Your task to perform on an android device: all mails in gmail Image 0: 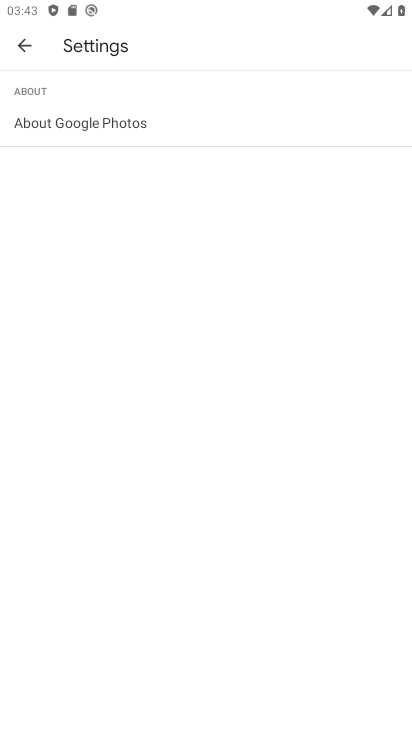
Step 0: press home button
Your task to perform on an android device: all mails in gmail Image 1: 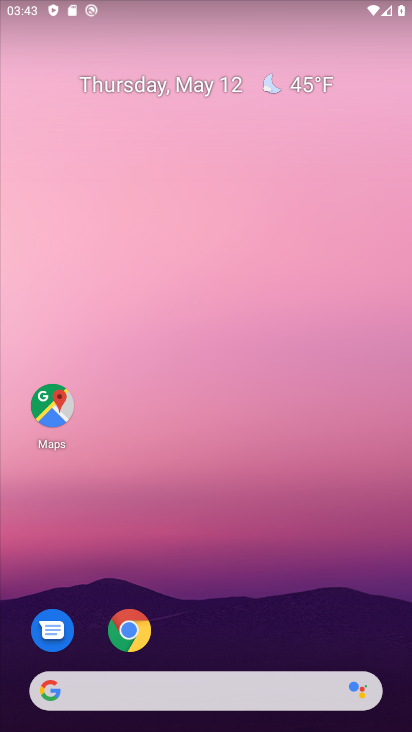
Step 1: drag from (266, 600) to (266, 290)
Your task to perform on an android device: all mails in gmail Image 2: 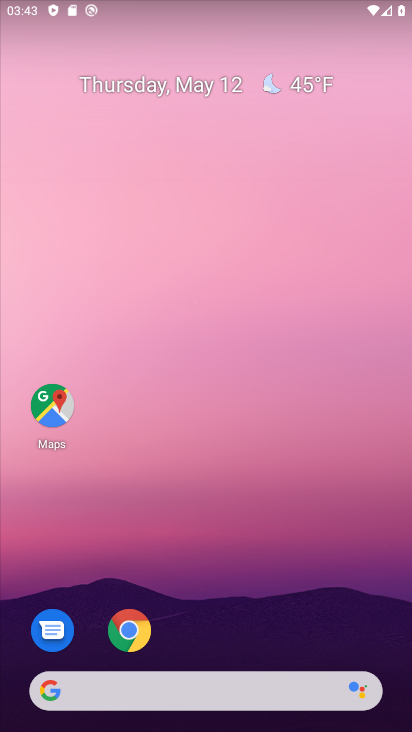
Step 2: drag from (215, 571) to (185, 58)
Your task to perform on an android device: all mails in gmail Image 3: 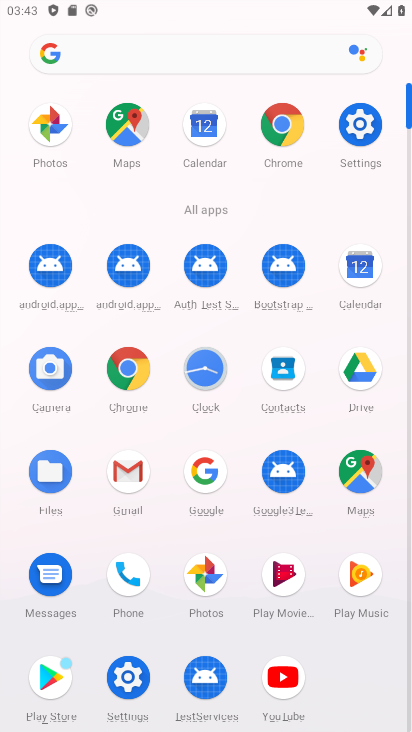
Step 3: click (124, 481)
Your task to perform on an android device: all mails in gmail Image 4: 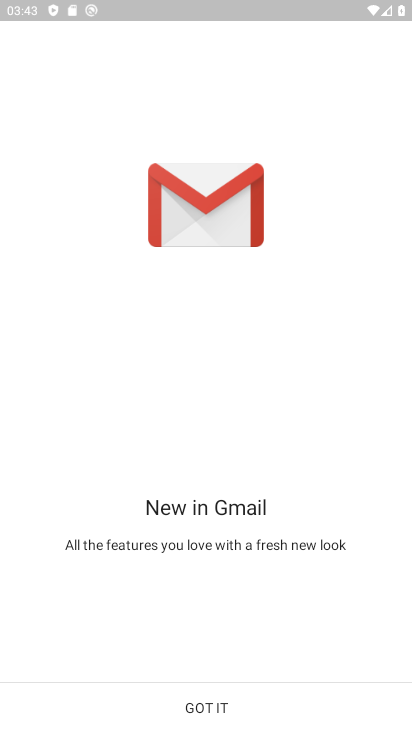
Step 4: click (263, 707)
Your task to perform on an android device: all mails in gmail Image 5: 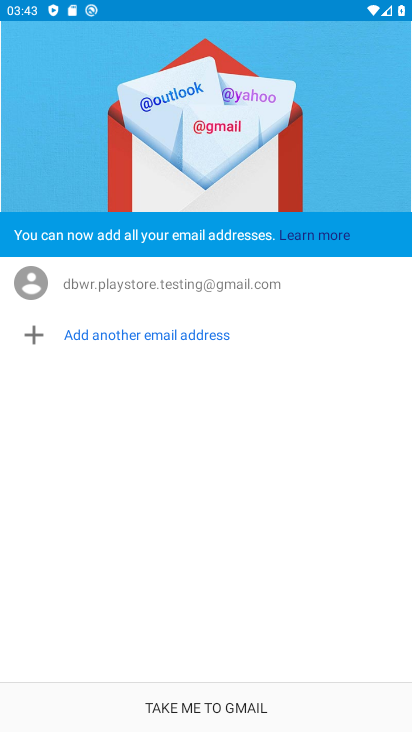
Step 5: click (263, 707)
Your task to perform on an android device: all mails in gmail Image 6: 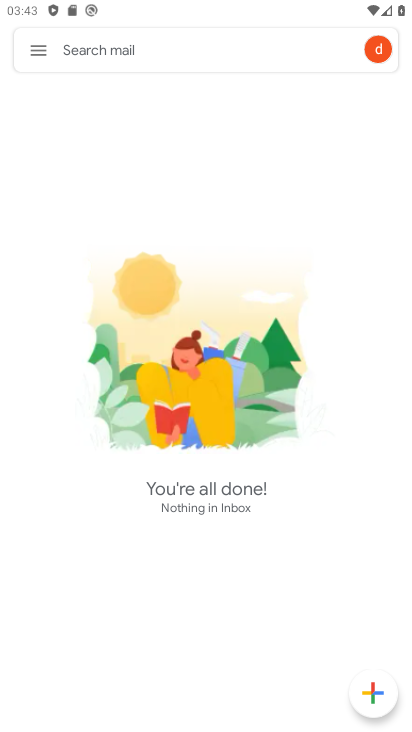
Step 6: click (44, 60)
Your task to perform on an android device: all mails in gmail Image 7: 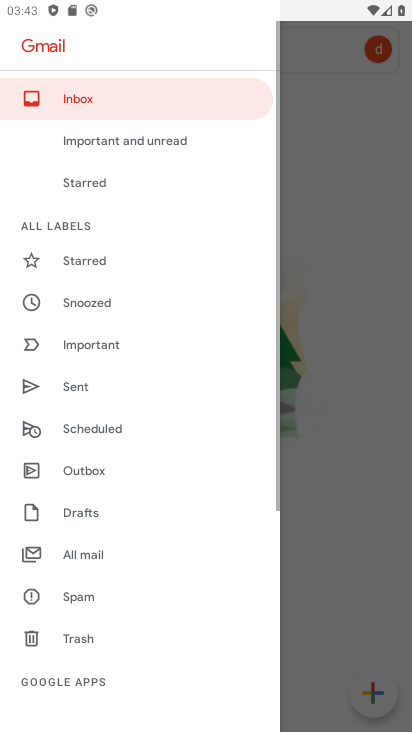
Step 7: click (92, 559)
Your task to perform on an android device: all mails in gmail Image 8: 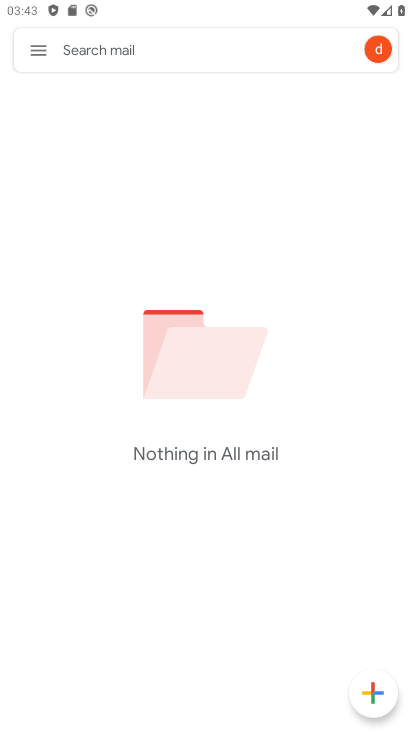
Step 8: task complete